Your task to perform on an android device: Open notification settings Image 0: 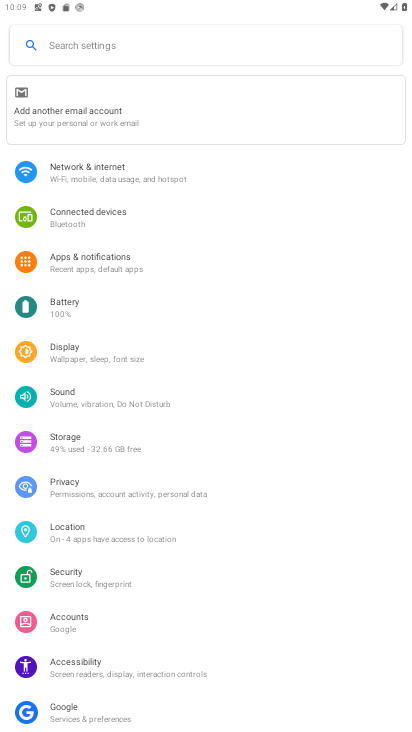
Step 0: click (87, 257)
Your task to perform on an android device: Open notification settings Image 1: 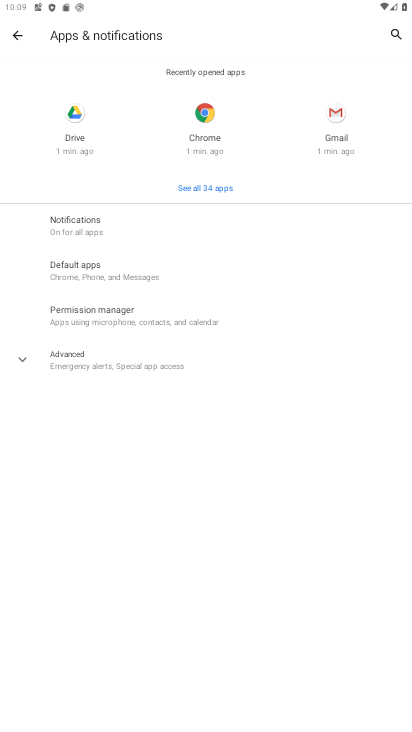
Step 1: click (73, 223)
Your task to perform on an android device: Open notification settings Image 2: 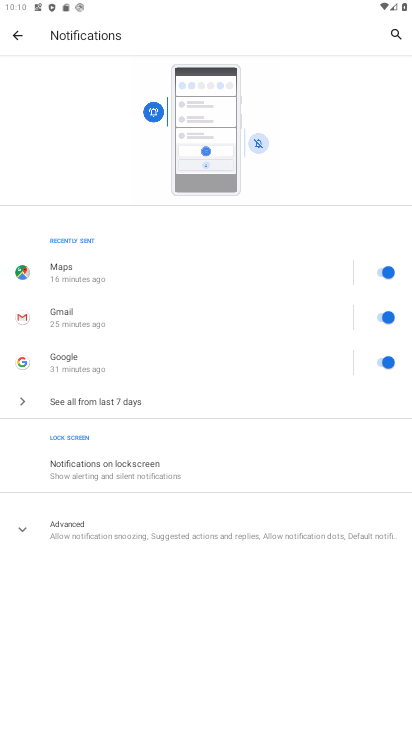
Step 2: task complete